Your task to perform on an android device: set the timer Image 0: 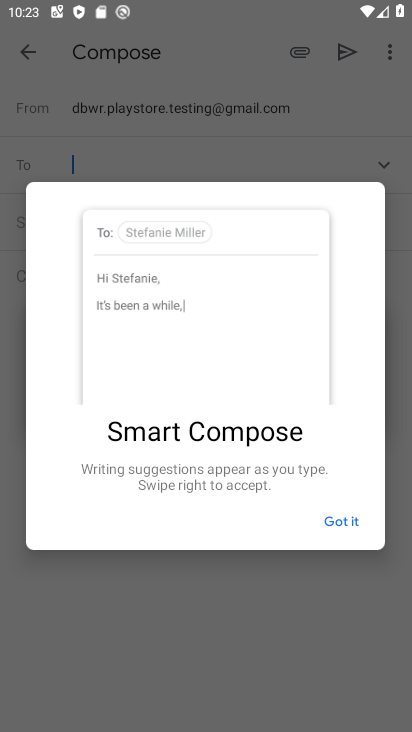
Step 0: press home button
Your task to perform on an android device: set the timer Image 1: 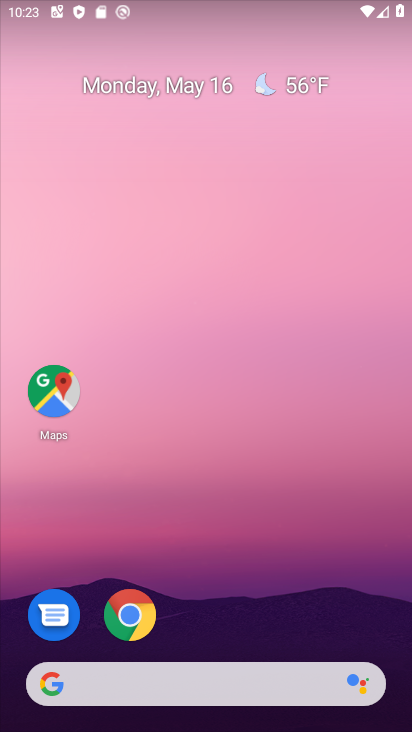
Step 1: drag from (267, 646) to (204, 263)
Your task to perform on an android device: set the timer Image 2: 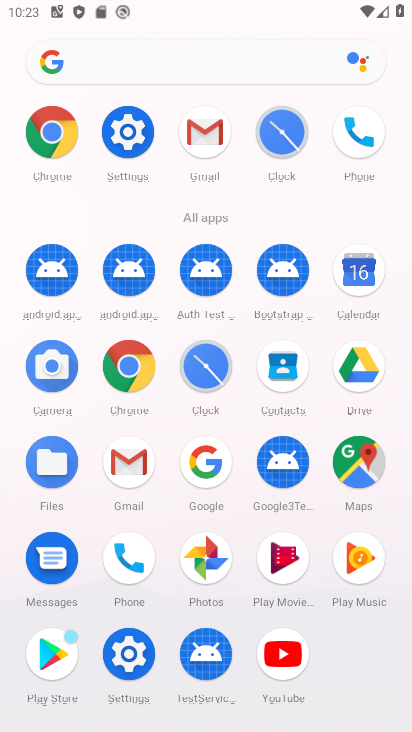
Step 2: click (209, 356)
Your task to perform on an android device: set the timer Image 3: 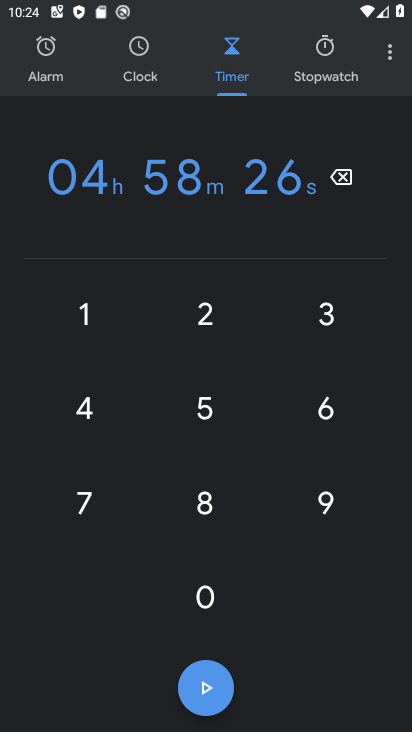
Step 3: click (251, 271)
Your task to perform on an android device: set the timer Image 4: 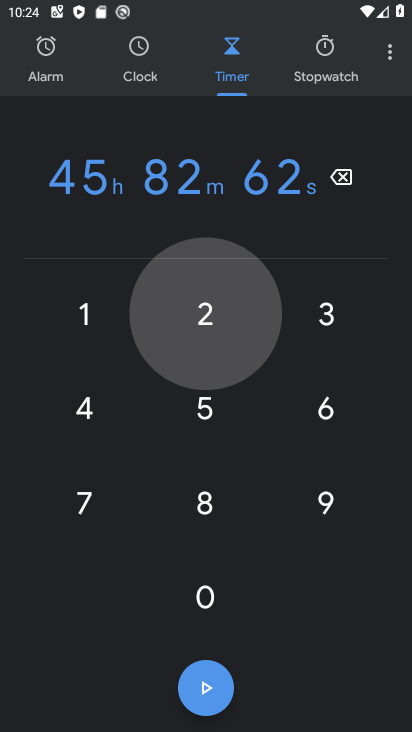
Step 4: click (223, 302)
Your task to perform on an android device: set the timer Image 5: 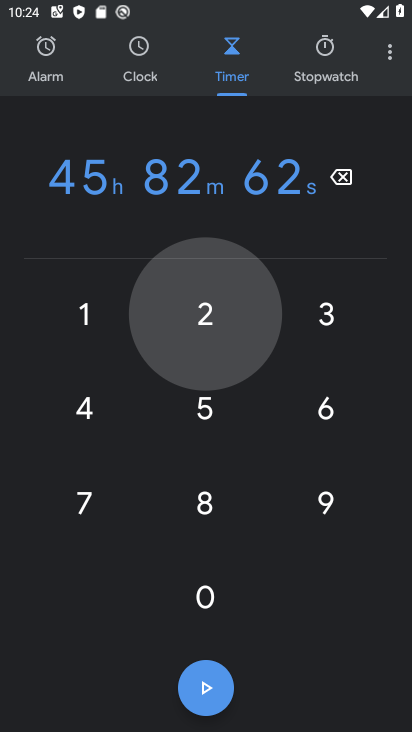
Step 5: click (185, 376)
Your task to perform on an android device: set the timer Image 6: 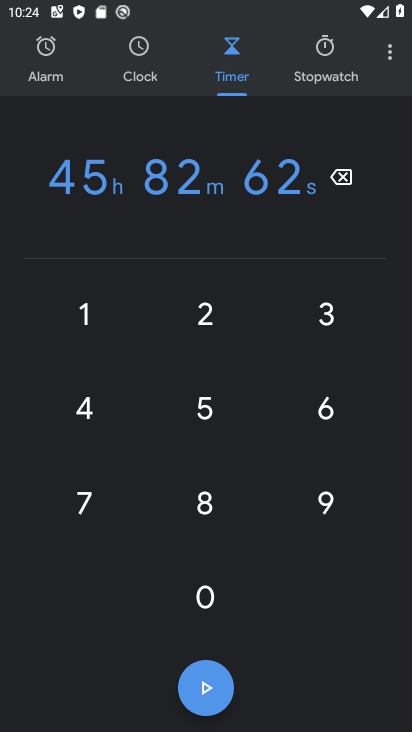
Step 6: task complete